Your task to perform on an android device: Open Chrome and go to the settings page Image 0: 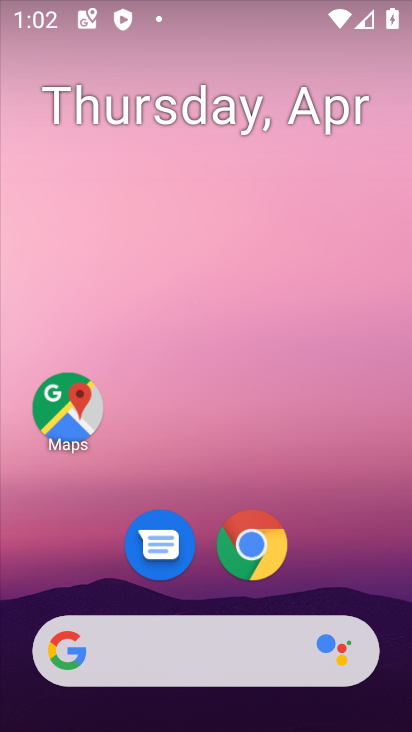
Step 0: drag from (165, 605) to (291, 148)
Your task to perform on an android device: Open Chrome and go to the settings page Image 1: 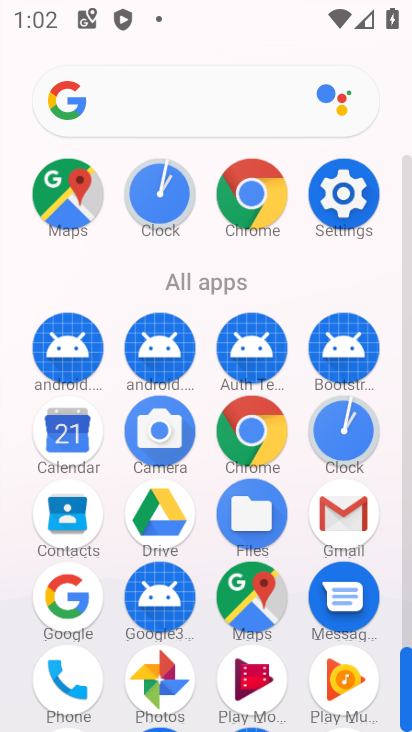
Step 1: click (261, 211)
Your task to perform on an android device: Open Chrome and go to the settings page Image 2: 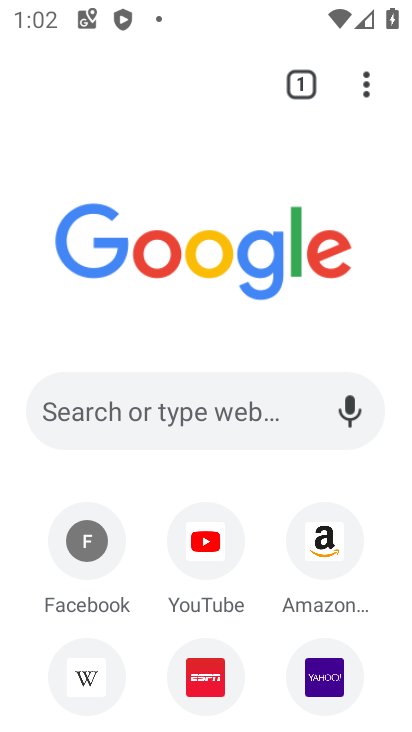
Step 2: click (359, 98)
Your task to perform on an android device: Open Chrome and go to the settings page Image 3: 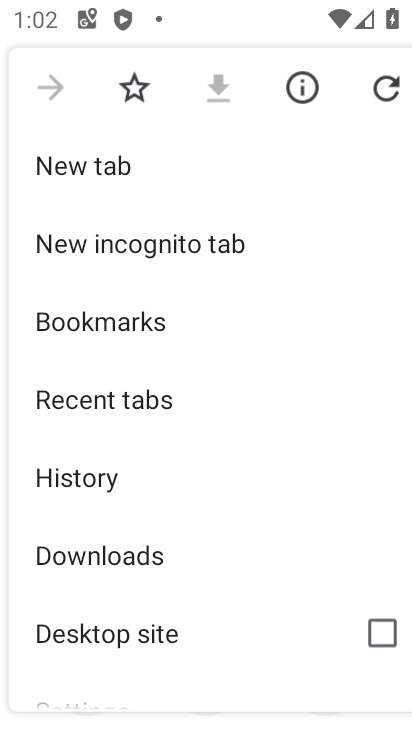
Step 3: drag from (209, 545) to (301, 306)
Your task to perform on an android device: Open Chrome and go to the settings page Image 4: 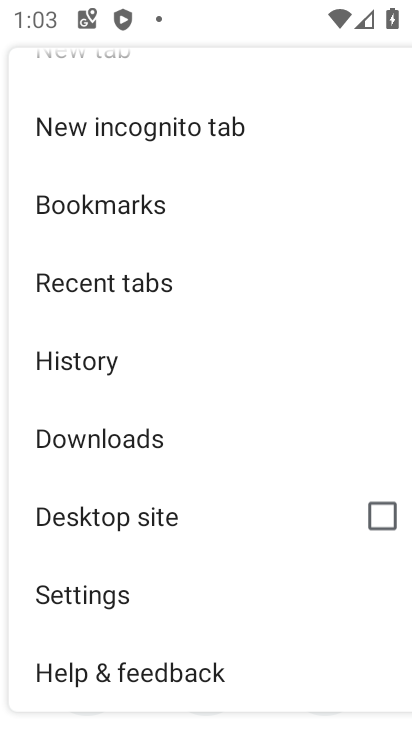
Step 4: click (91, 596)
Your task to perform on an android device: Open Chrome and go to the settings page Image 5: 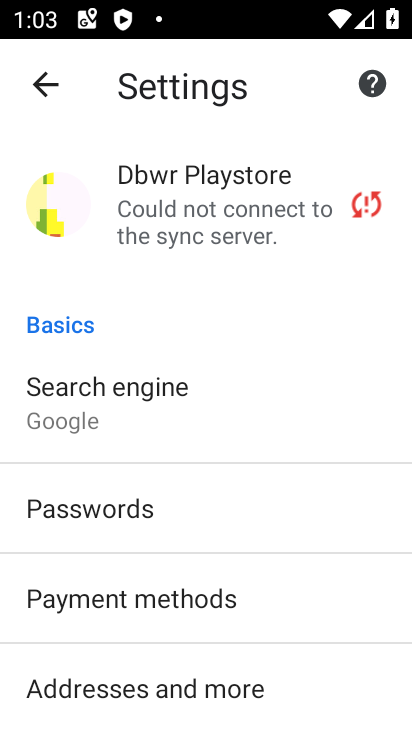
Step 5: task complete